Your task to perform on an android device: Open accessibility settings Image 0: 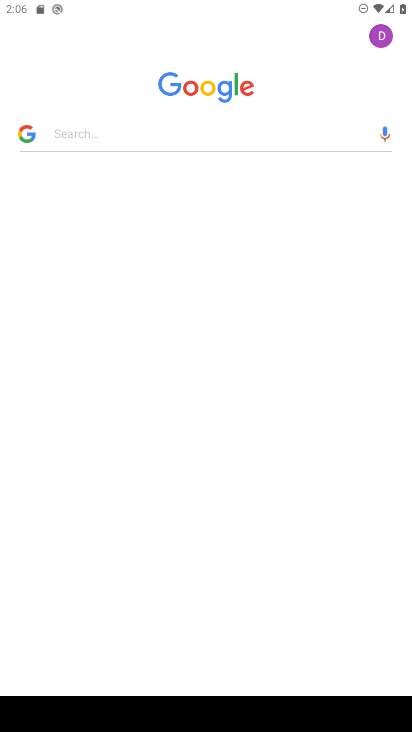
Step 0: press home button
Your task to perform on an android device: Open accessibility settings Image 1: 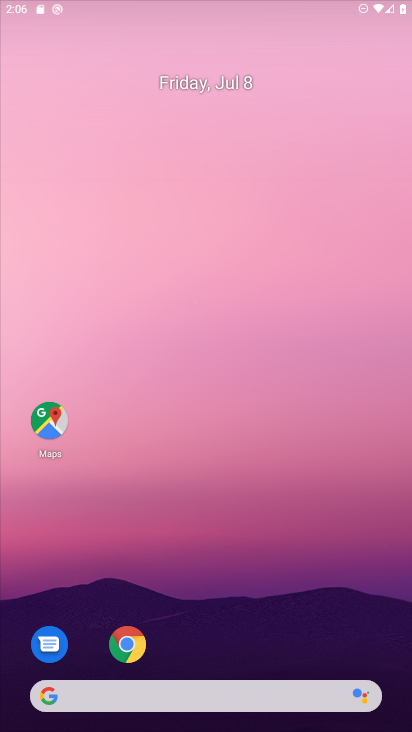
Step 1: drag from (199, 624) to (197, 397)
Your task to perform on an android device: Open accessibility settings Image 2: 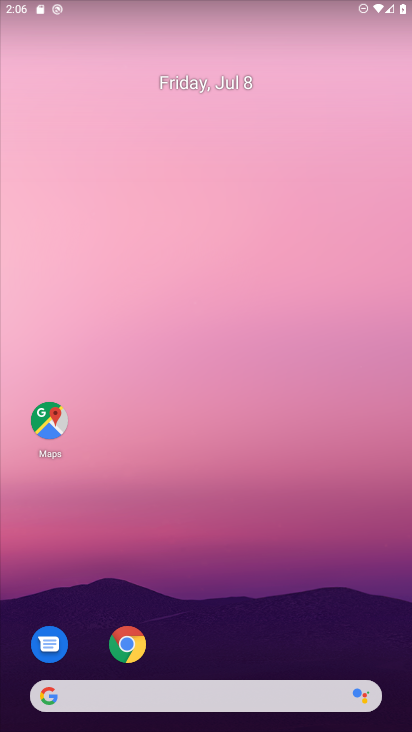
Step 2: drag from (220, 670) to (217, 353)
Your task to perform on an android device: Open accessibility settings Image 3: 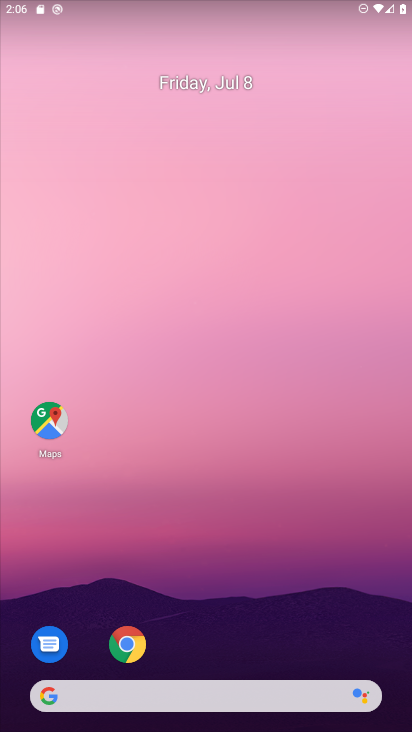
Step 3: drag from (222, 604) to (221, 191)
Your task to perform on an android device: Open accessibility settings Image 4: 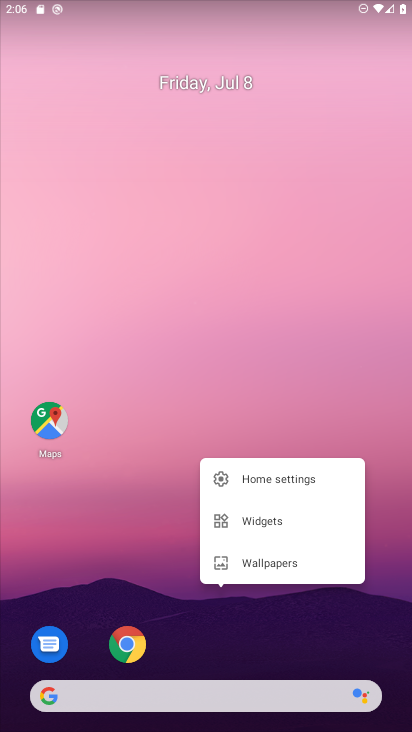
Step 4: click (160, 577)
Your task to perform on an android device: Open accessibility settings Image 5: 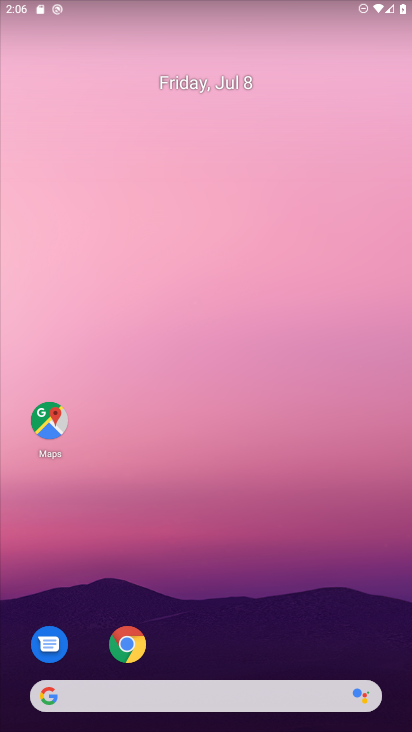
Step 5: drag from (187, 670) to (207, 304)
Your task to perform on an android device: Open accessibility settings Image 6: 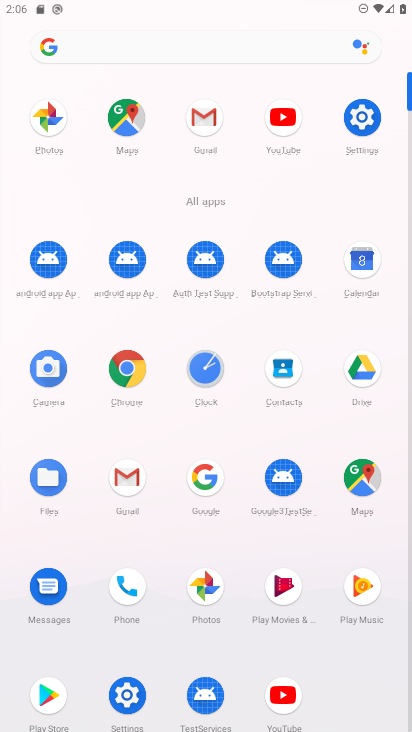
Step 6: click (352, 115)
Your task to perform on an android device: Open accessibility settings Image 7: 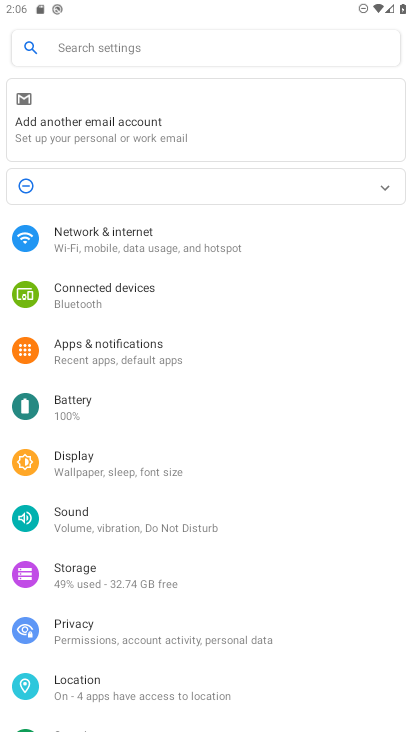
Step 7: drag from (136, 616) to (191, 219)
Your task to perform on an android device: Open accessibility settings Image 8: 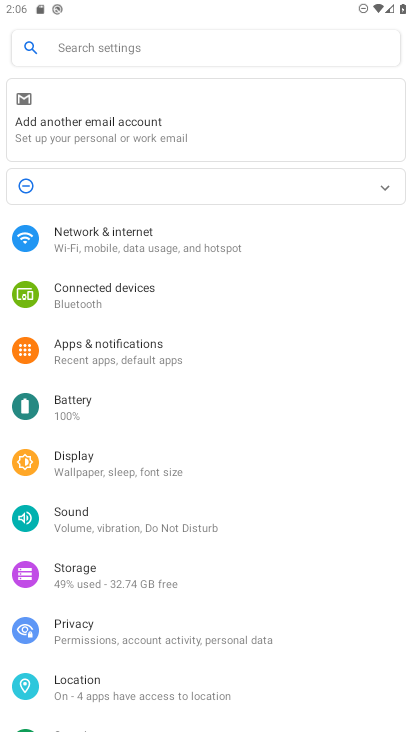
Step 8: drag from (220, 646) to (232, 252)
Your task to perform on an android device: Open accessibility settings Image 9: 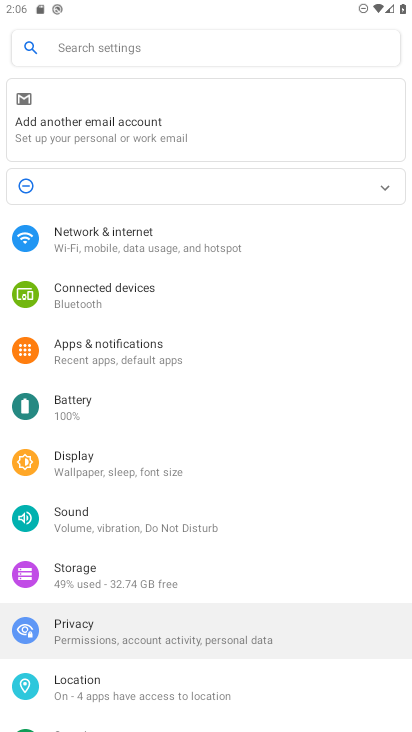
Step 9: drag from (124, 653) to (148, 391)
Your task to perform on an android device: Open accessibility settings Image 10: 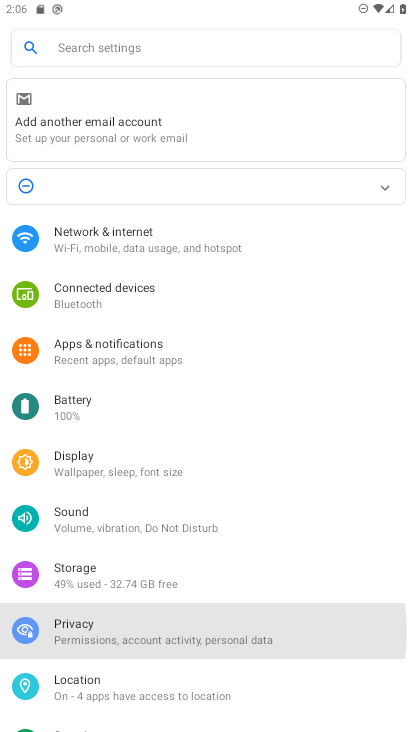
Step 10: drag from (107, 695) to (168, 341)
Your task to perform on an android device: Open accessibility settings Image 11: 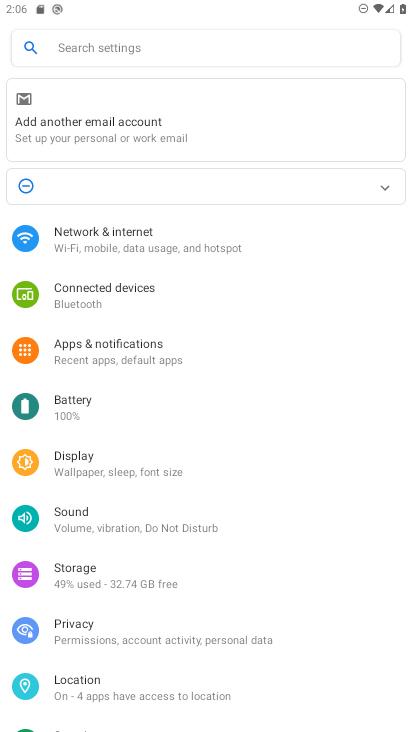
Step 11: drag from (184, 538) to (194, 292)
Your task to perform on an android device: Open accessibility settings Image 12: 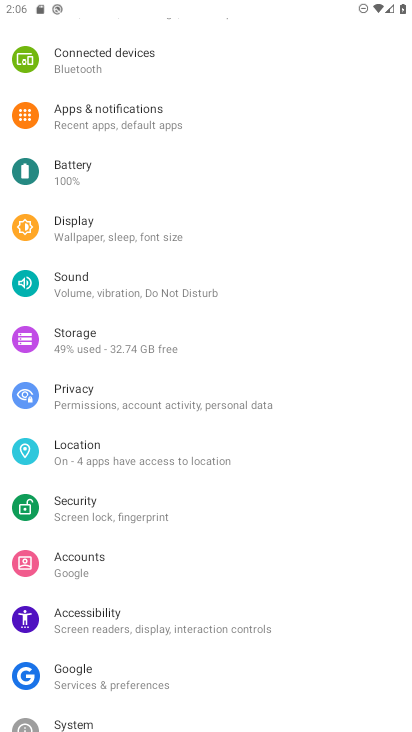
Step 12: drag from (157, 611) to (169, 399)
Your task to perform on an android device: Open accessibility settings Image 13: 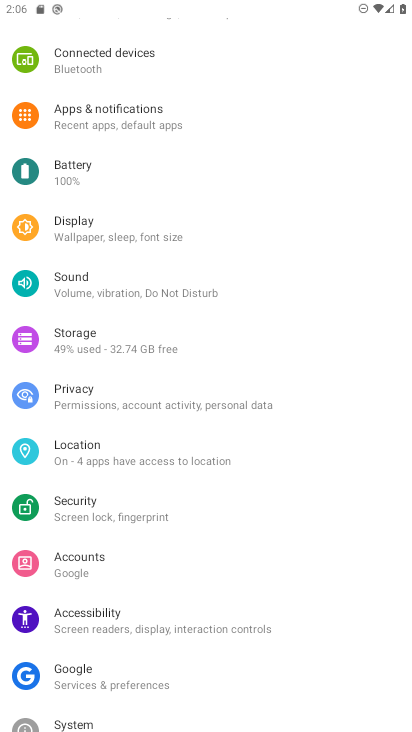
Step 13: click (126, 603)
Your task to perform on an android device: Open accessibility settings Image 14: 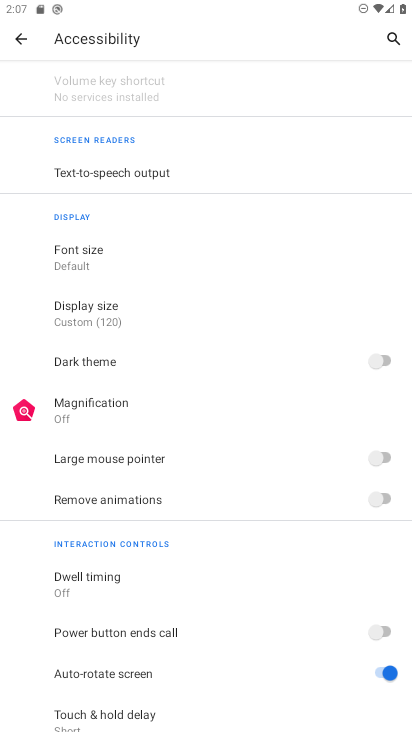
Step 14: task complete